Your task to perform on an android device: What's the weather? Image 0: 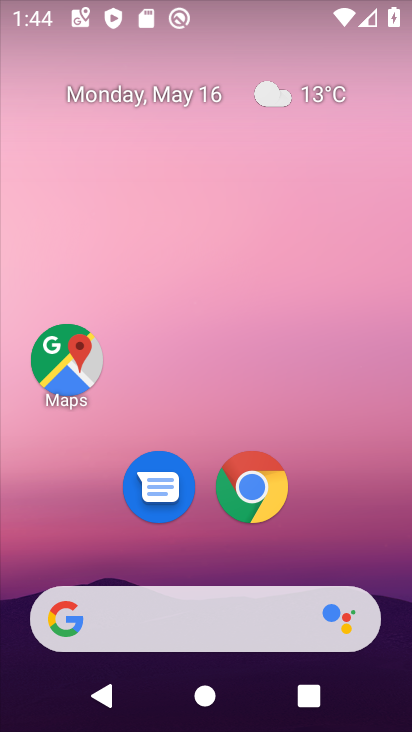
Step 0: drag from (333, 439) to (224, 4)
Your task to perform on an android device: What's the weather? Image 1: 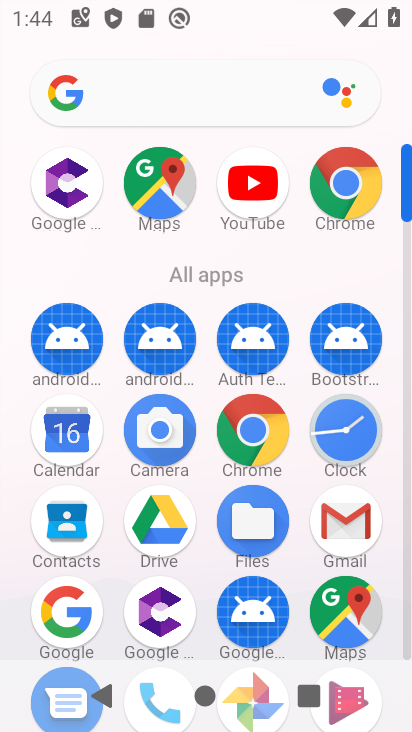
Step 1: drag from (11, 548) to (0, 187)
Your task to perform on an android device: What's the weather? Image 2: 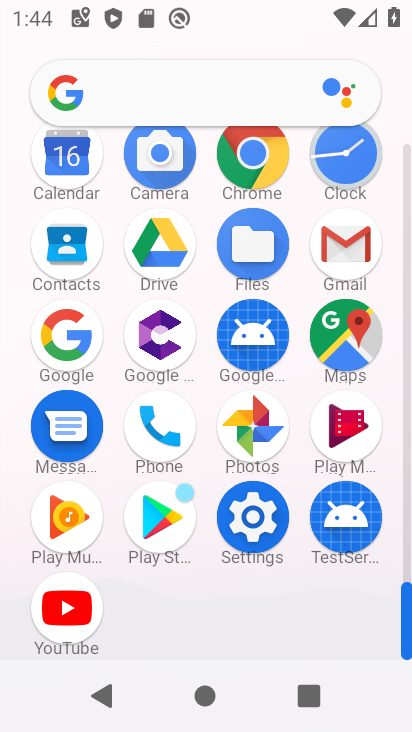
Step 2: drag from (20, 465) to (0, 197)
Your task to perform on an android device: What's the weather? Image 3: 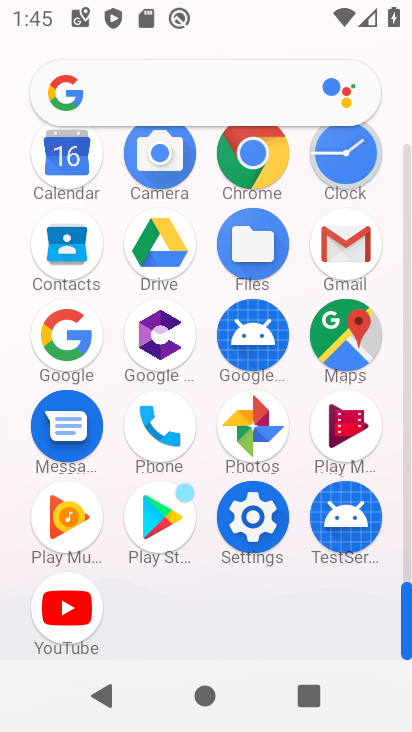
Step 3: click (256, 151)
Your task to perform on an android device: What's the weather? Image 4: 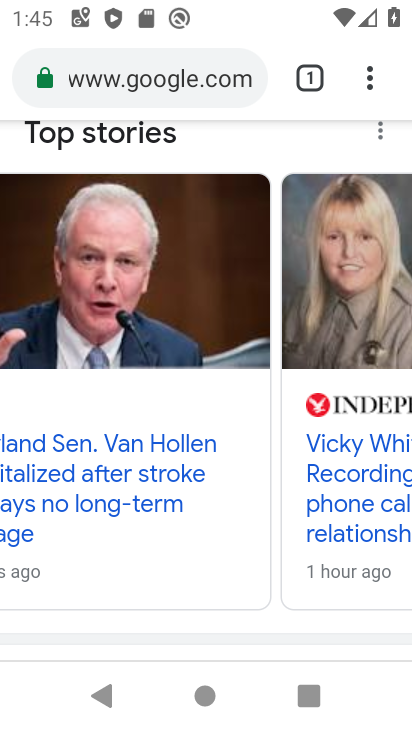
Step 4: click (129, 88)
Your task to perform on an android device: What's the weather? Image 5: 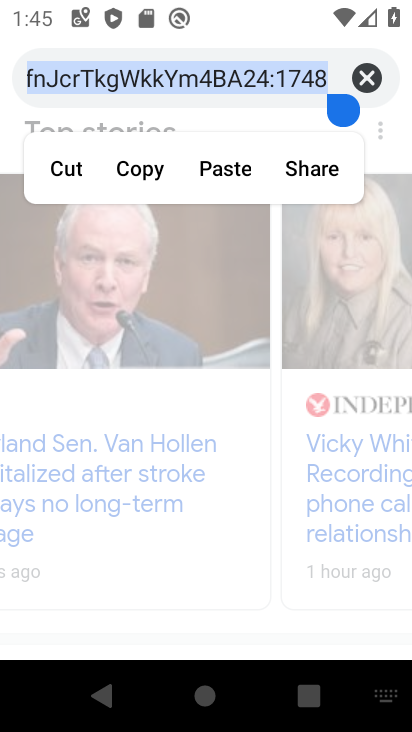
Step 5: click (372, 73)
Your task to perform on an android device: What's the weather? Image 6: 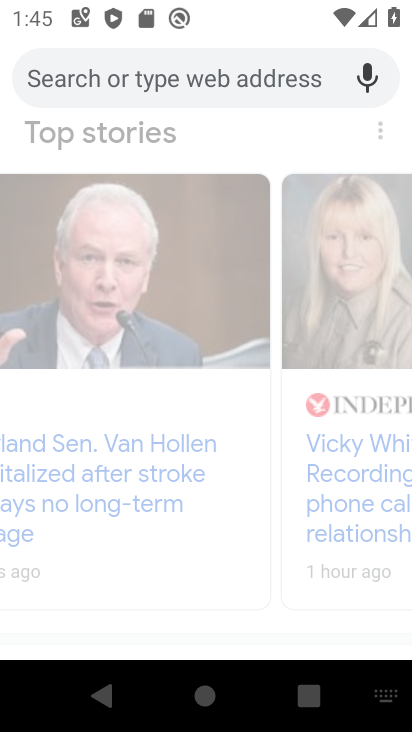
Step 6: type "What's the weather?"
Your task to perform on an android device: What's the weather? Image 7: 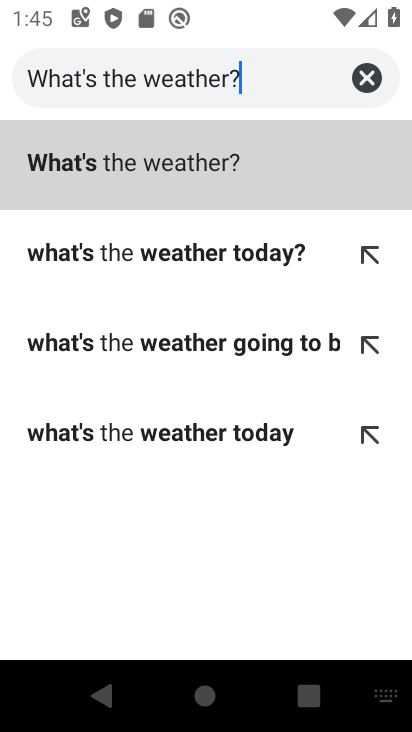
Step 7: click (212, 165)
Your task to perform on an android device: What's the weather? Image 8: 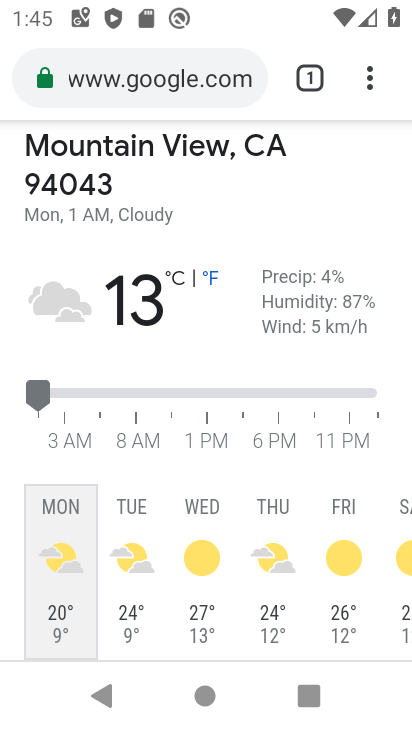
Step 8: task complete